Your task to perform on an android device: Open notification settings Image 0: 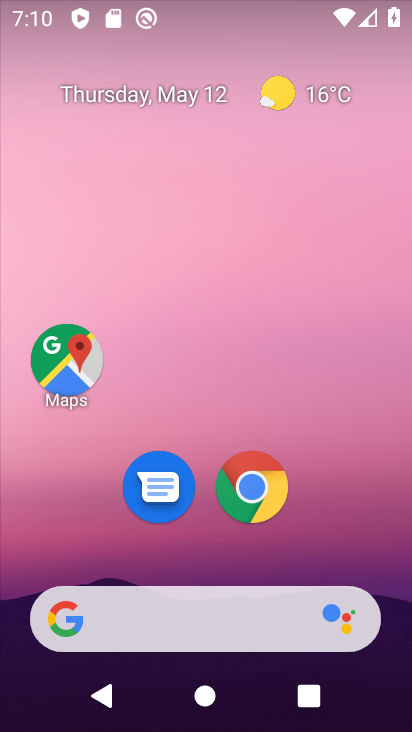
Step 0: drag from (345, 427) to (356, 148)
Your task to perform on an android device: Open notification settings Image 1: 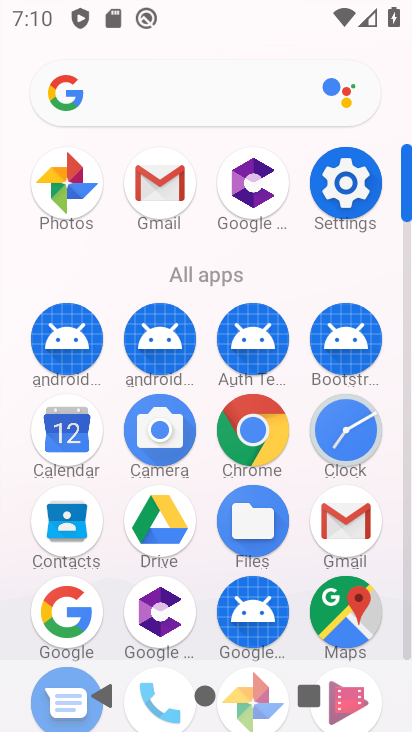
Step 1: click (342, 180)
Your task to perform on an android device: Open notification settings Image 2: 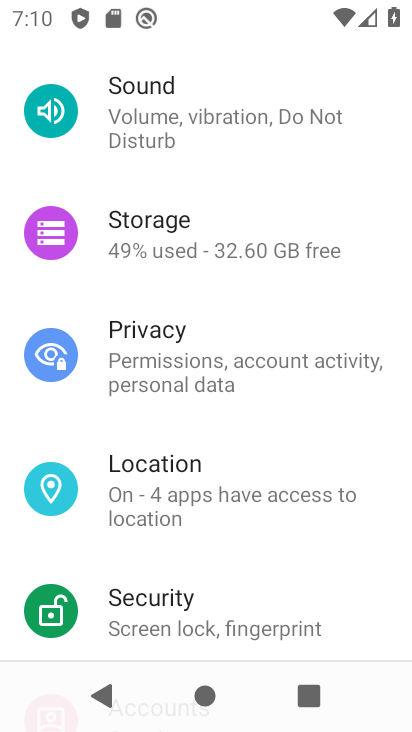
Step 2: drag from (340, 217) to (338, 597)
Your task to perform on an android device: Open notification settings Image 3: 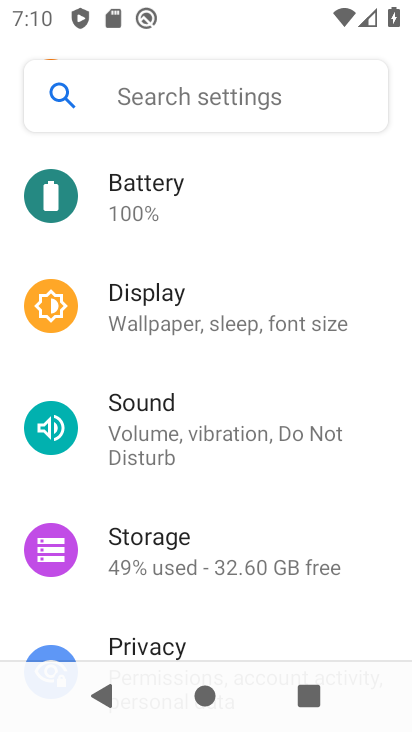
Step 3: drag from (394, 277) to (365, 542)
Your task to perform on an android device: Open notification settings Image 4: 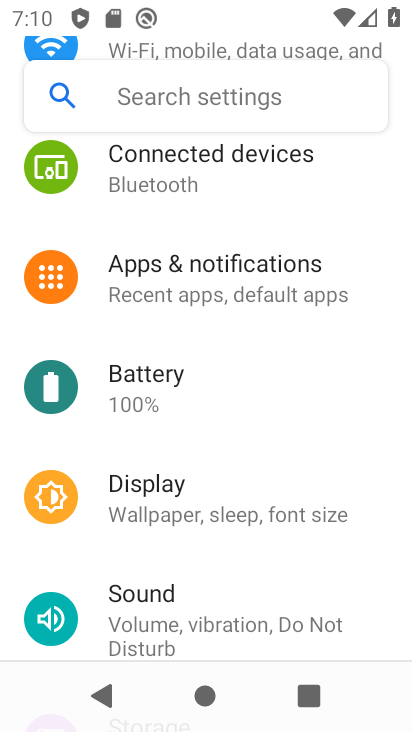
Step 4: click (250, 294)
Your task to perform on an android device: Open notification settings Image 5: 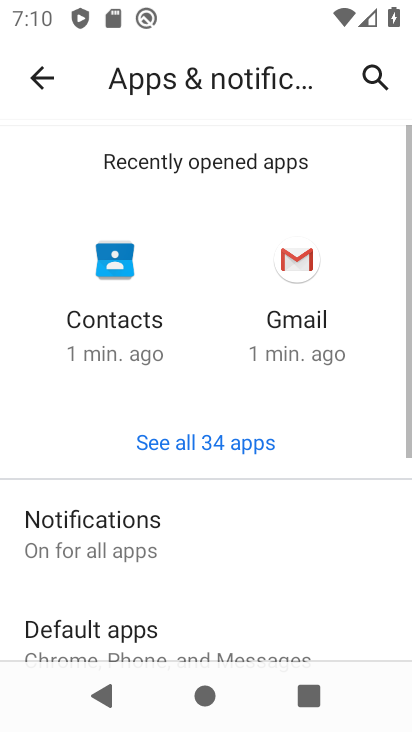
Step 5: click (124, 526)
Your task to perform on an android device: Open notification settings Image 6: 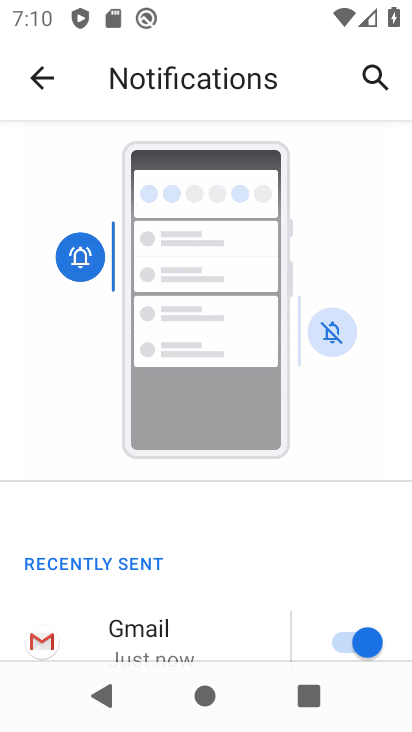
Step 6: drag from (167, 642) to (141, 274)
Your task to perform on an android device: Open notification settings Image 7: 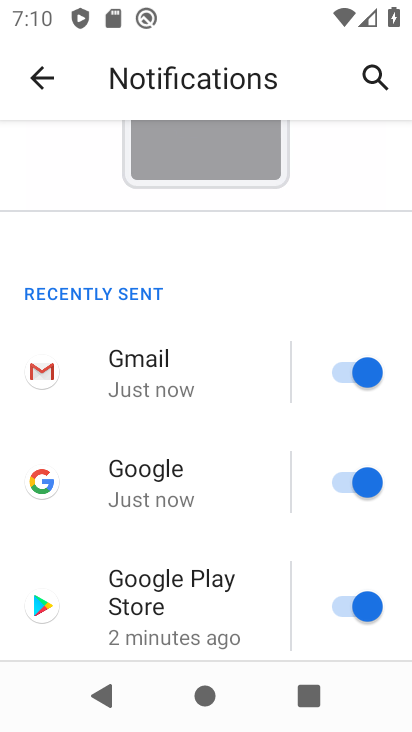
Step 7: drag from (219, 595) to (149, 217)
Your task to perform on an android device: Open notification settings Image 8: 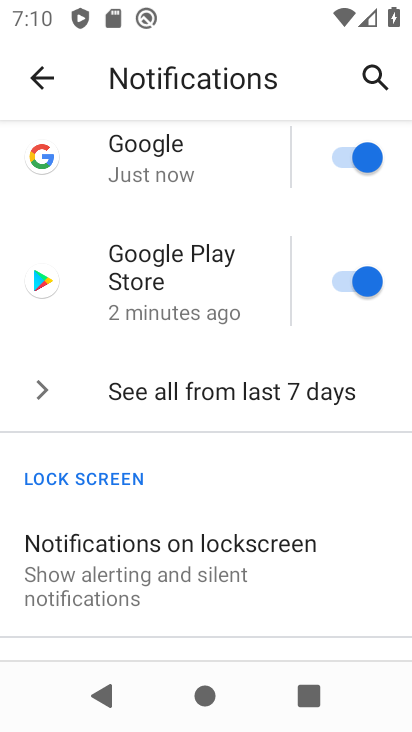
Step 8: drag from (195, 563) to (194, 250)
Your task to perform on an android device: Open notification settings Image 9: 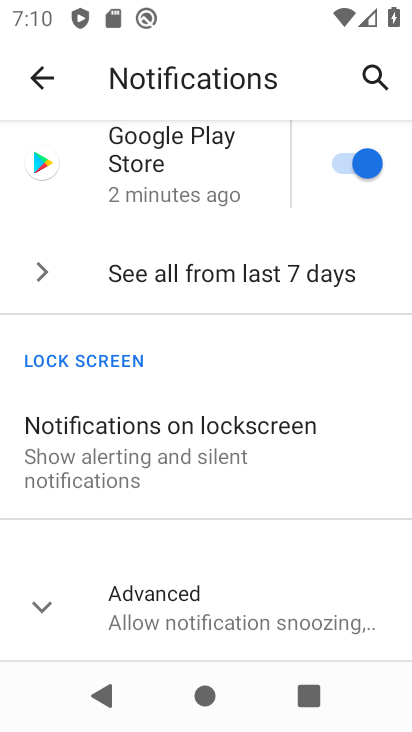
Step 9: click (159, 624)
Your task to perform on an android device: Open notification settings Image 10: 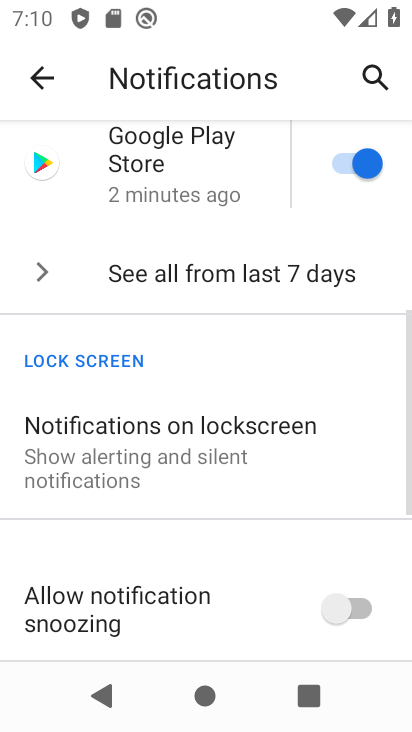
Step 10: task complete